Your task to perform on an android device: turn off wifi Image 0: 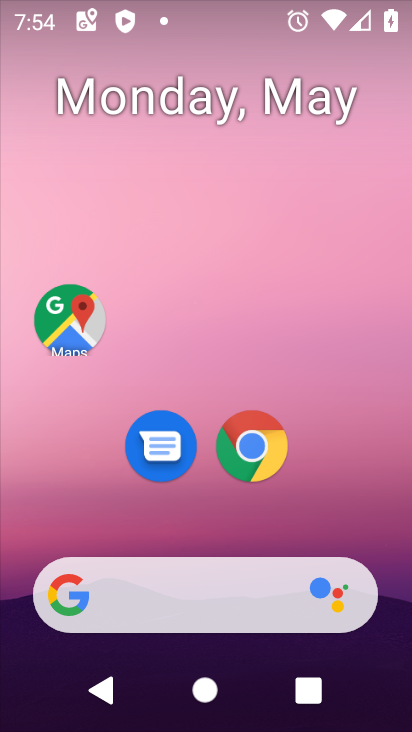
Step 0: drag from (264, 316) to (206, 161)
Your task to perform on an android device: turn off wifi Image 1: 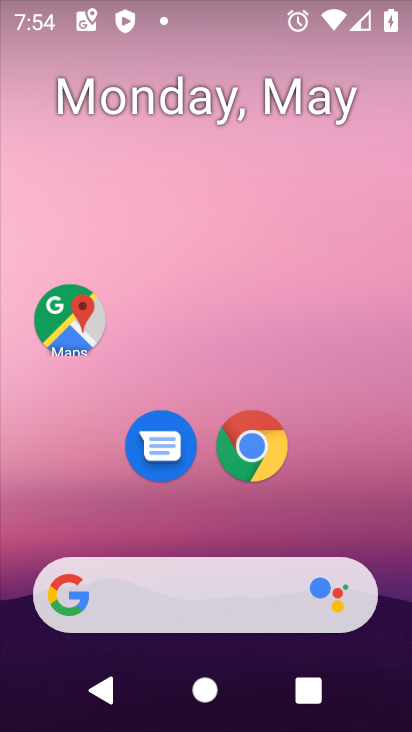
Step 1: drag from (319, 478) to (243, 79)
Your task to perform on an android device: turn off wifi Image 2: 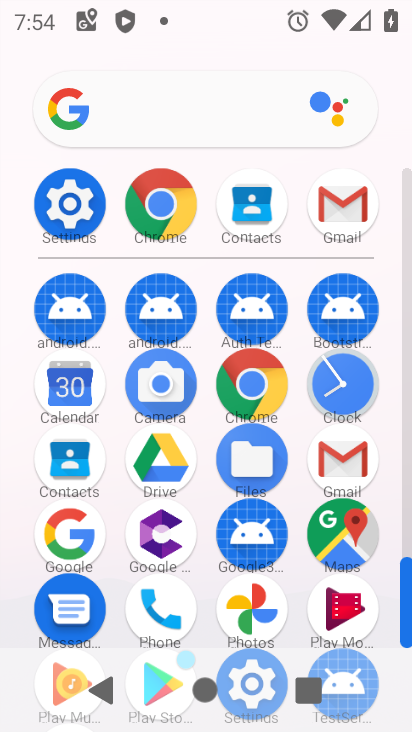
Step 2: click (64, 191)
Your task to perform on an android device: turn off wifi Image 3: 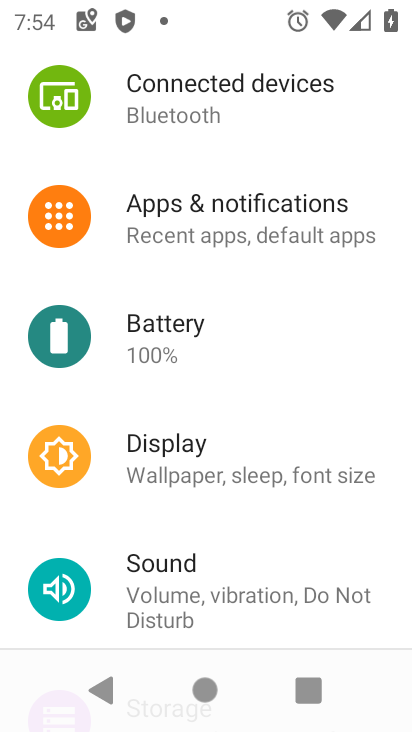
Step 3: drag from (223, 166) to (215, 677)
Your task to perform on an android device: turn off wifi Image 4: 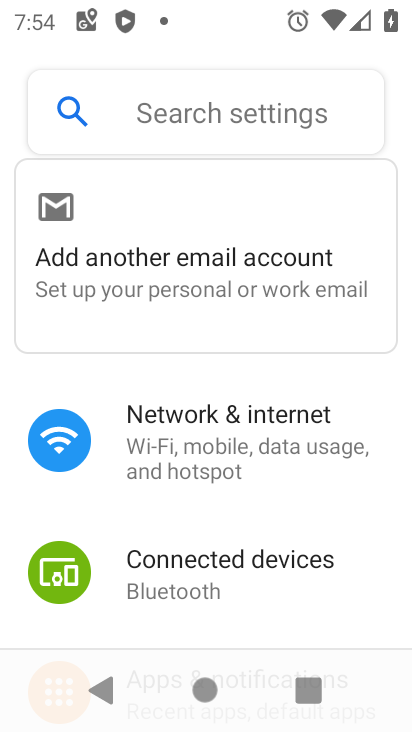
Step 4: click (205, 415)
Your task to perform on an android device: turn off wifi Image 5: 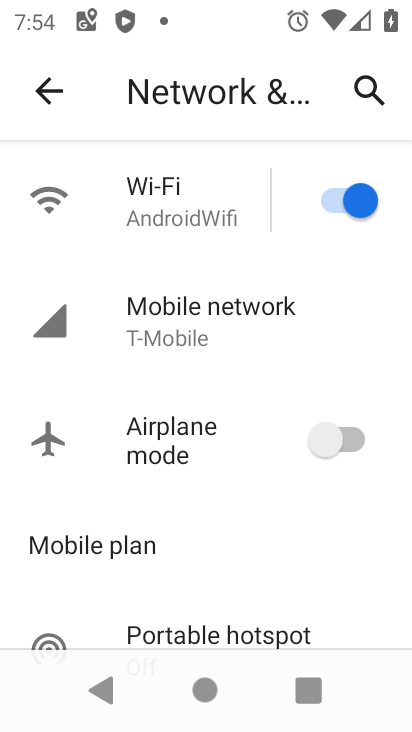
Step 5: click (356, 198)
Your task to perform on an android device: turn off wifi Image 6: 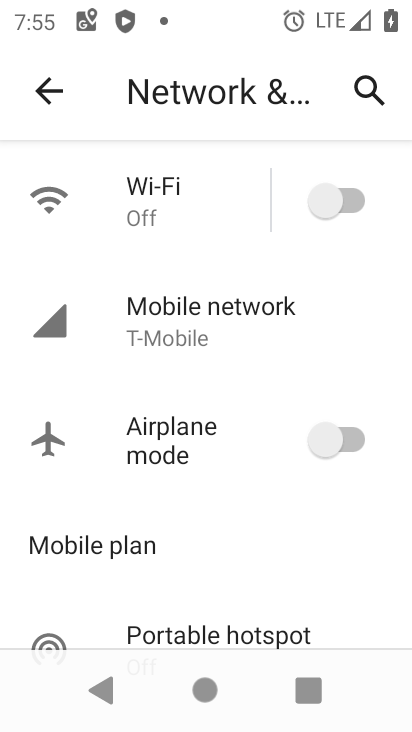
Step 6: task complete